Your task to perform on an android device: Show me the best rated coffee table on Ikea Image 0: 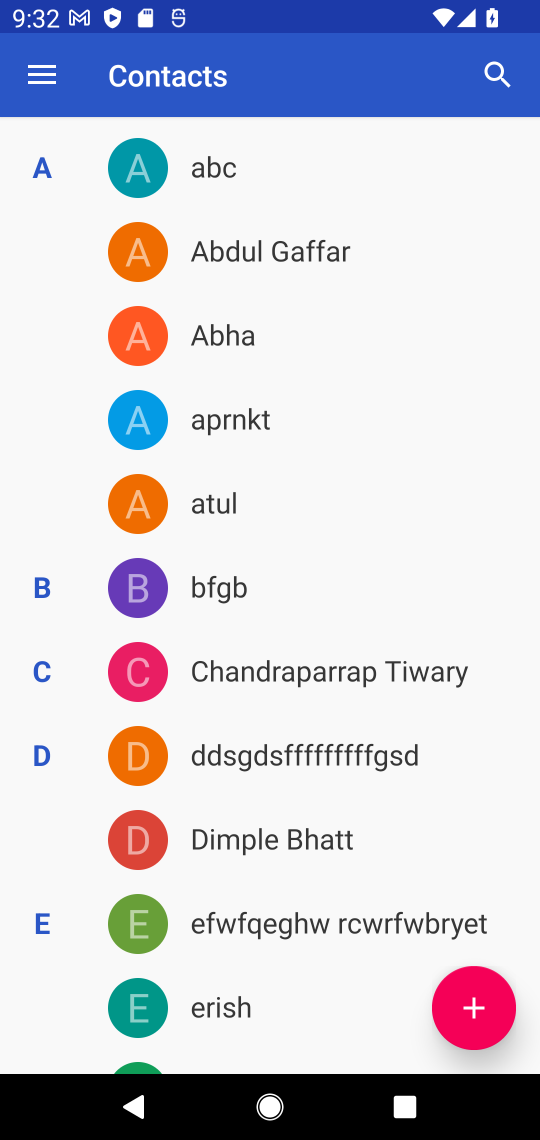
Step 0: press home button
Your task to perform on an android device: Show me the best rated coffee table on Ikea Image 1: 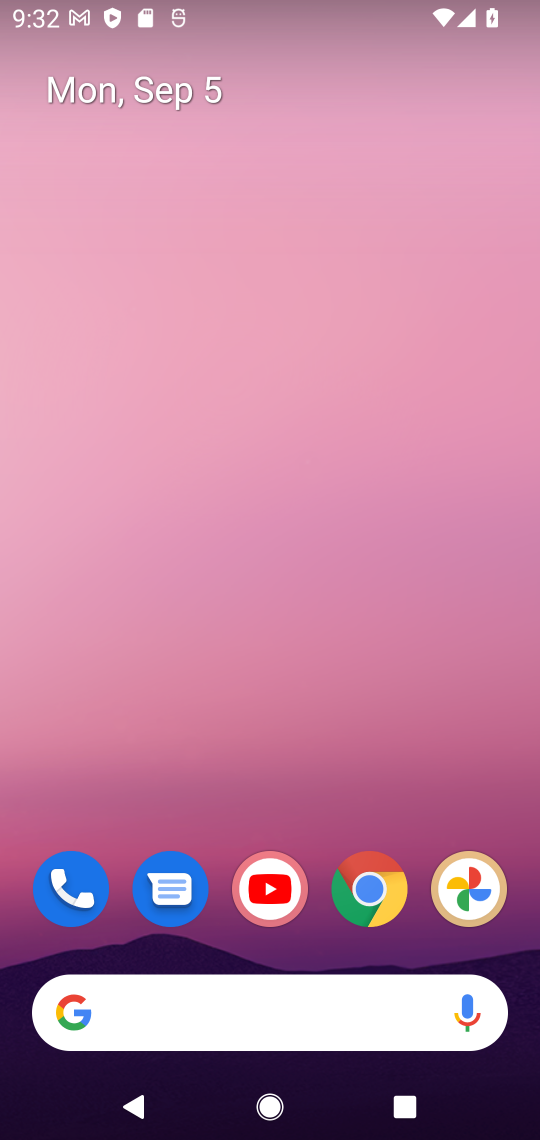
Step 1: drag from (283, 381) to (283, 262)
Your task to perform on an android device: Show me the best rated coffee table on Ikea Image 2: 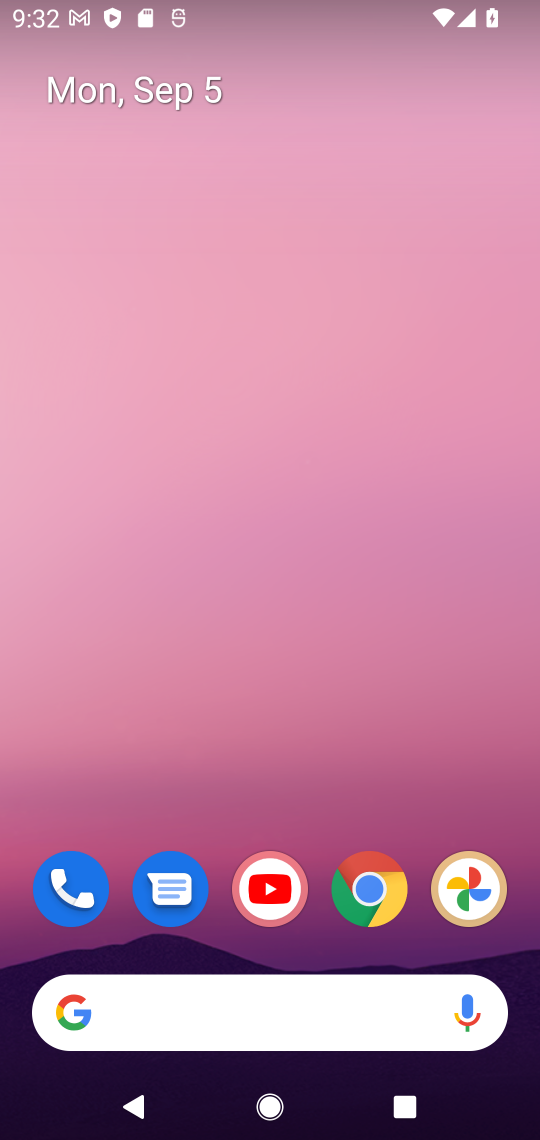
Step 2: click (225, 97)
Your task to perform on an android device: Show me the best rated coffee table on Ikea Image 3: 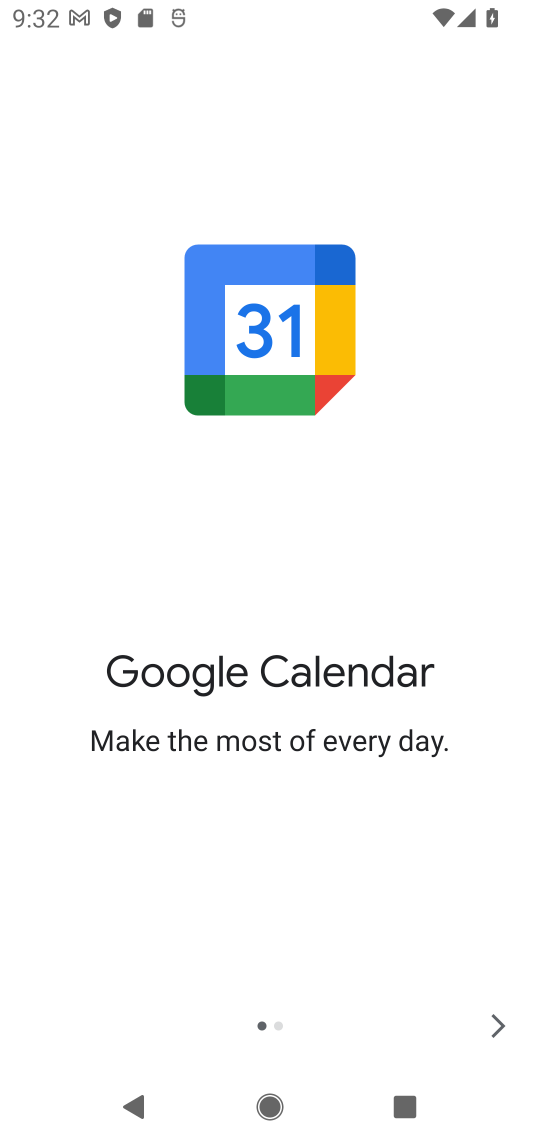
Step 3: press home button
Your task to perform on an android device: Show me the best rated coffee table on Ikea Image 4: 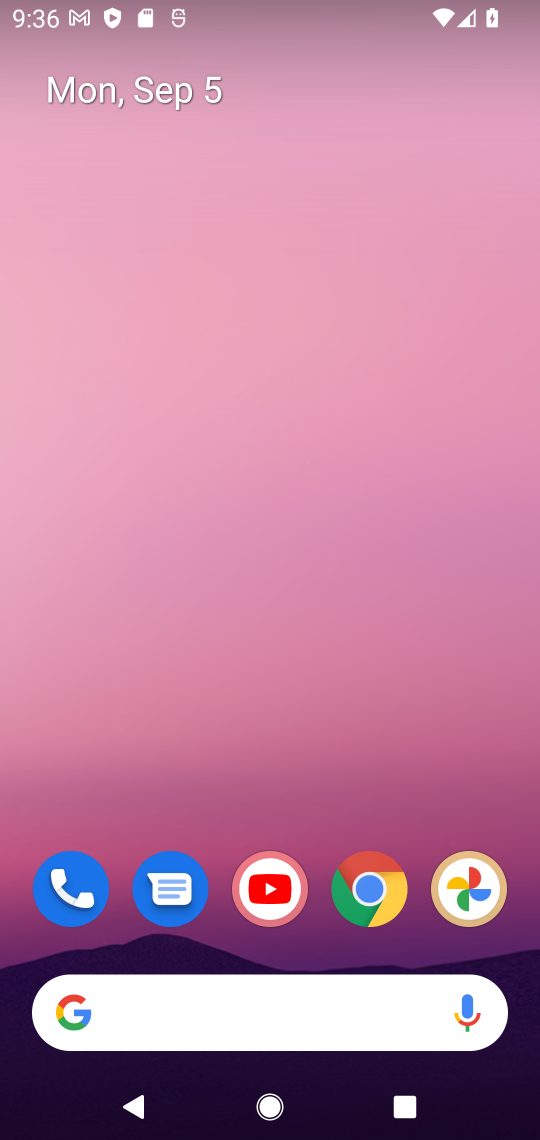
Step 4: click (272, 1016)
Your task to perform on an android device: Show me the best rated coffee table on Ikea Image 5: 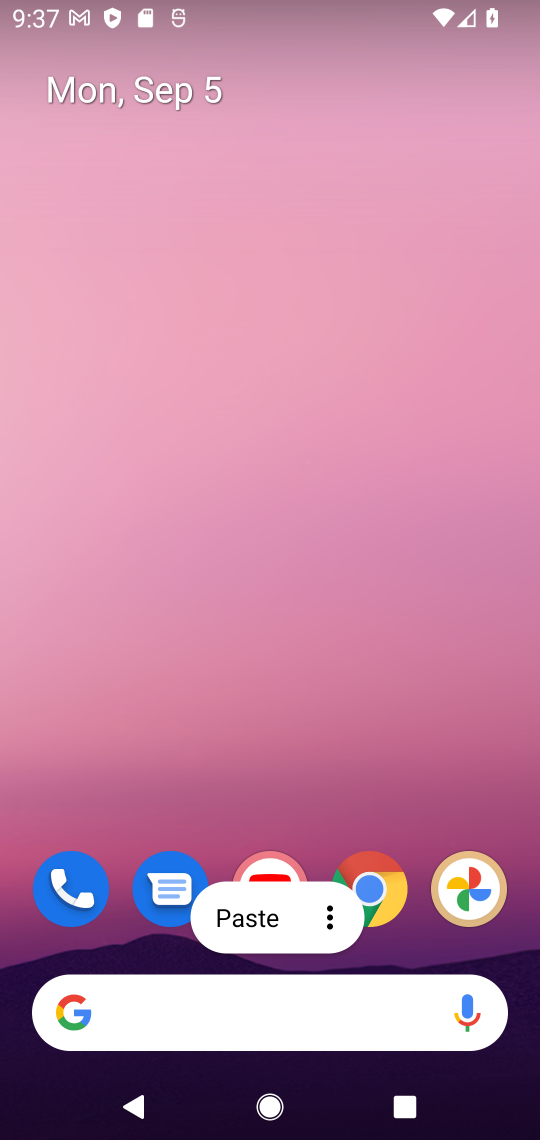
Step 5: click (272, 1016)
Your task to perform on an android device: Show me the best rated coffee table on Ikea Image 6: 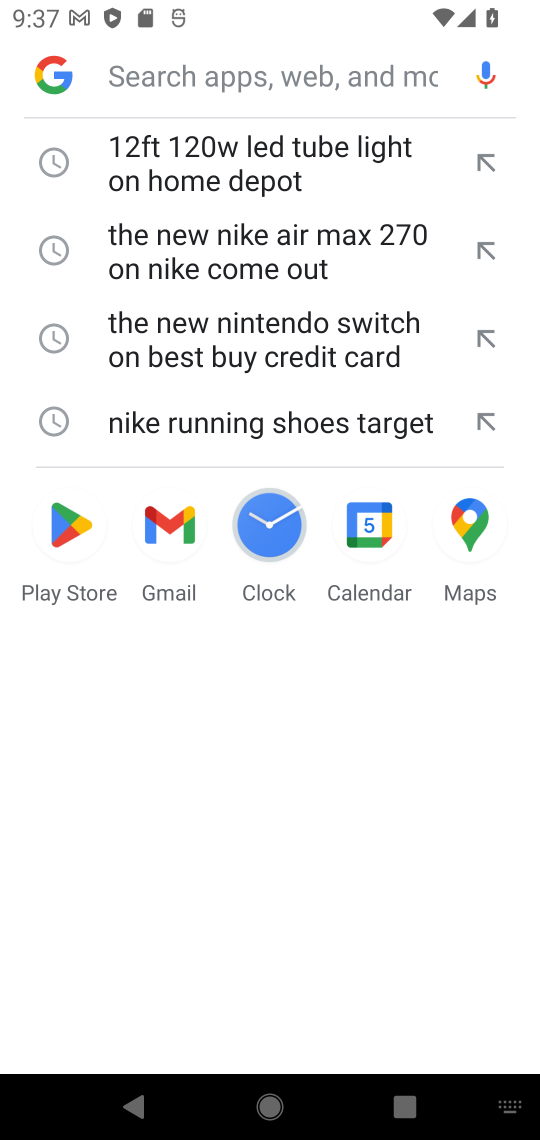
Step 6: type " the best rated coffee table on Ikea"
Your task to perform on an android device: Show me the best rated coffee table on Ikea Image 7: 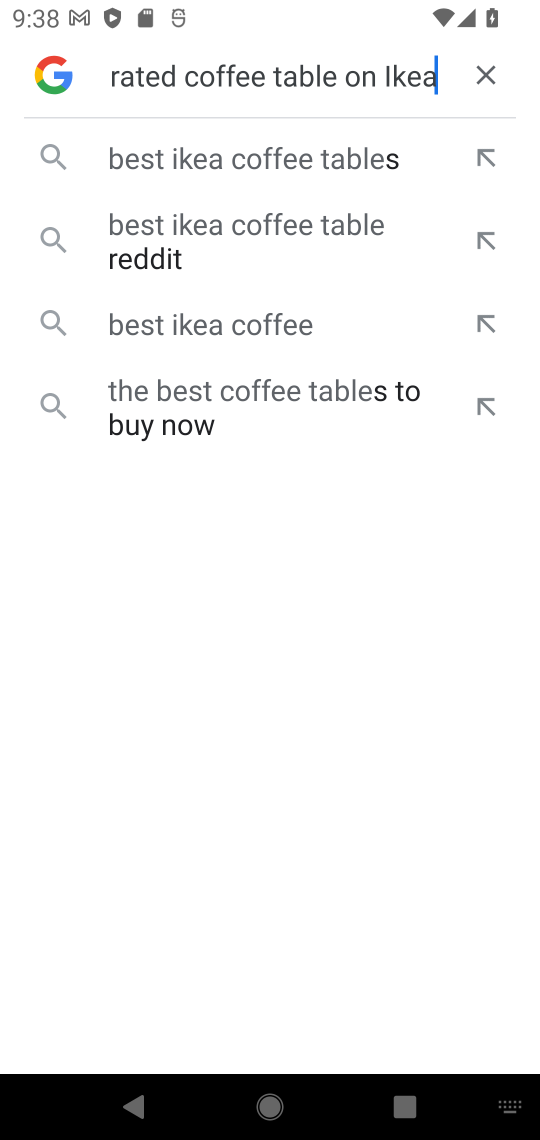
Step 7: click (485, 74)
Your task to perform on an android device: Show me the best rated coffee table on Ikea Image 8: 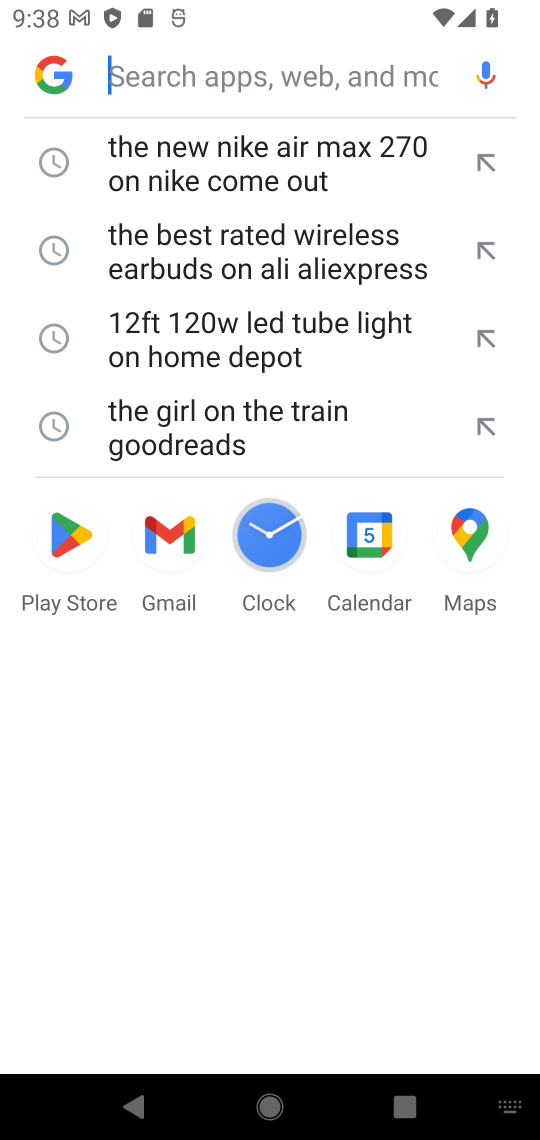
Step 8: type "the best rated coffee table on Ikea"
Your task to perform on an android device: Show me the best rated coffee table on Ikea Image 9: 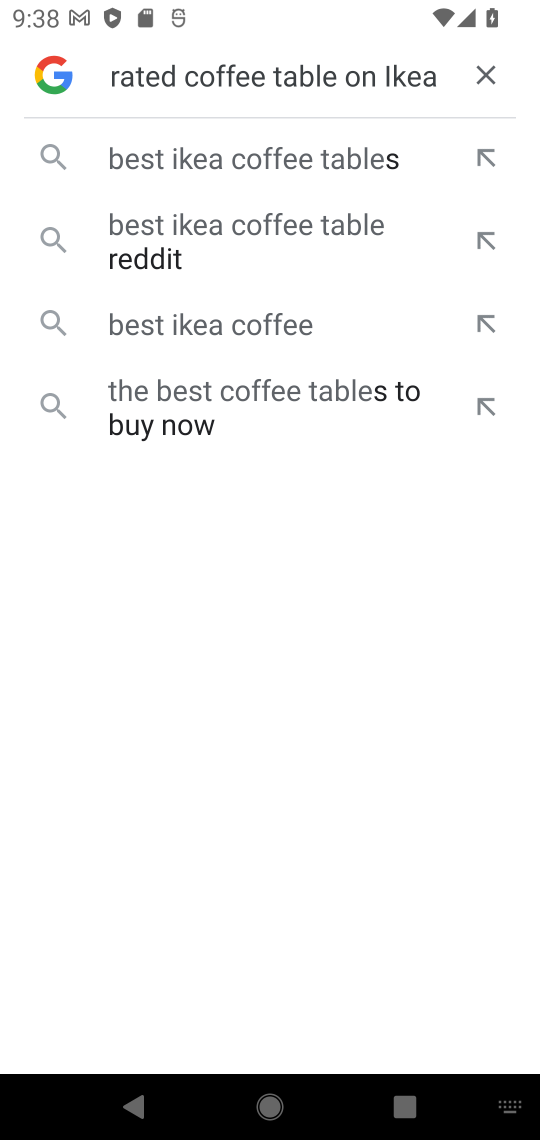
Step 9: click (295, 151)
Your task to perform on an android device: Show me the best rated coffee table on Ikea Image 10: 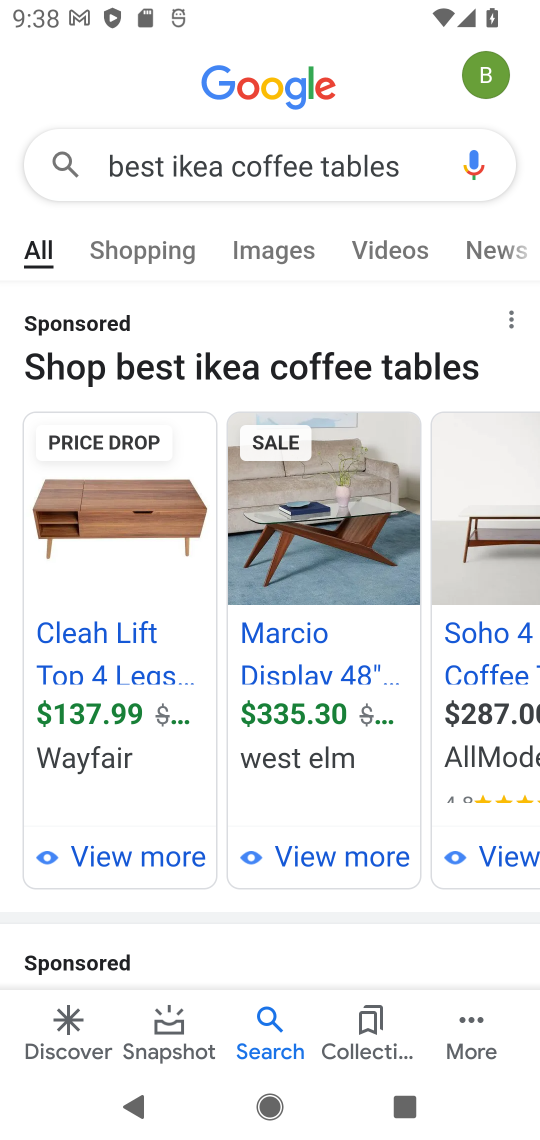
Step 10: click (394, 268)
Your task to perform on an android device: Show me the best rated coffee table on Ikea Image 11: 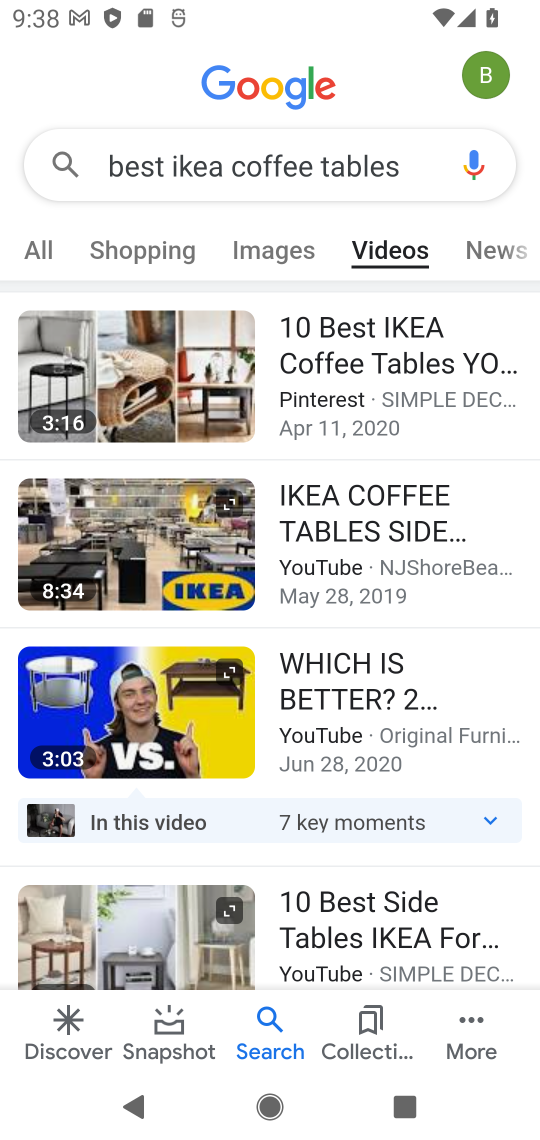
Step 11: task complete